Your task to perform on an android device: change the clock display to digital Image 0: 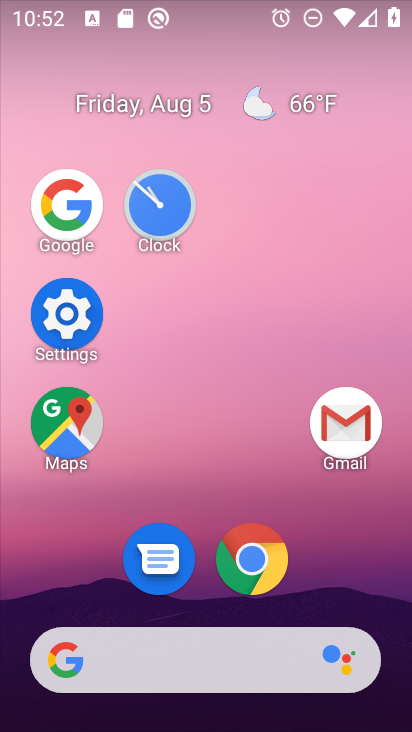
Step 0: task impossible